Your task to perform on an android device: What's the news in Vietnam? Image 0: 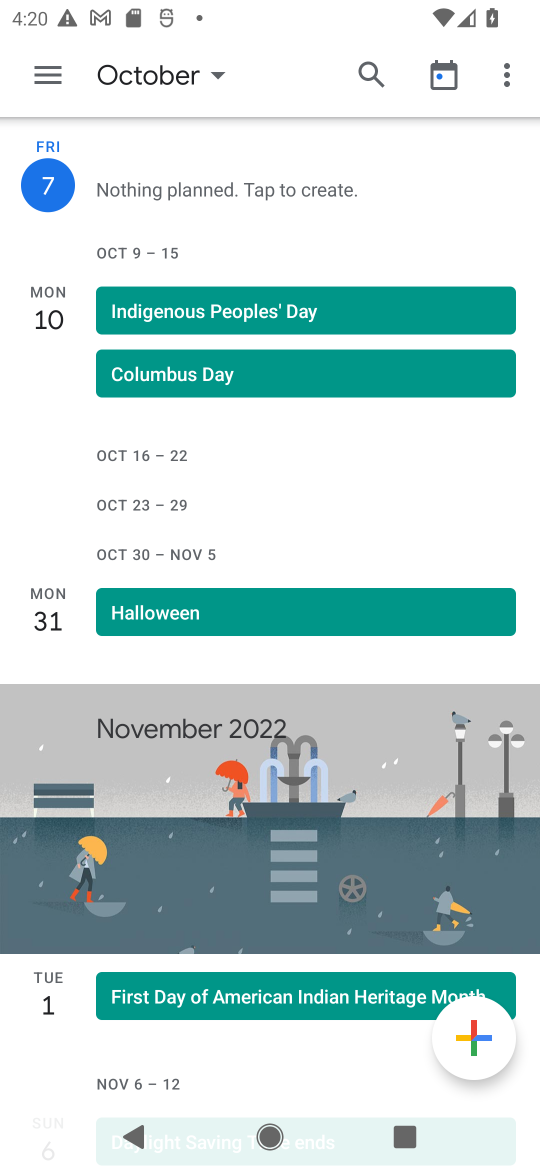
Step 0: press home button
Your task to perform on an android device: What's the news in Vietnam? Image 1: 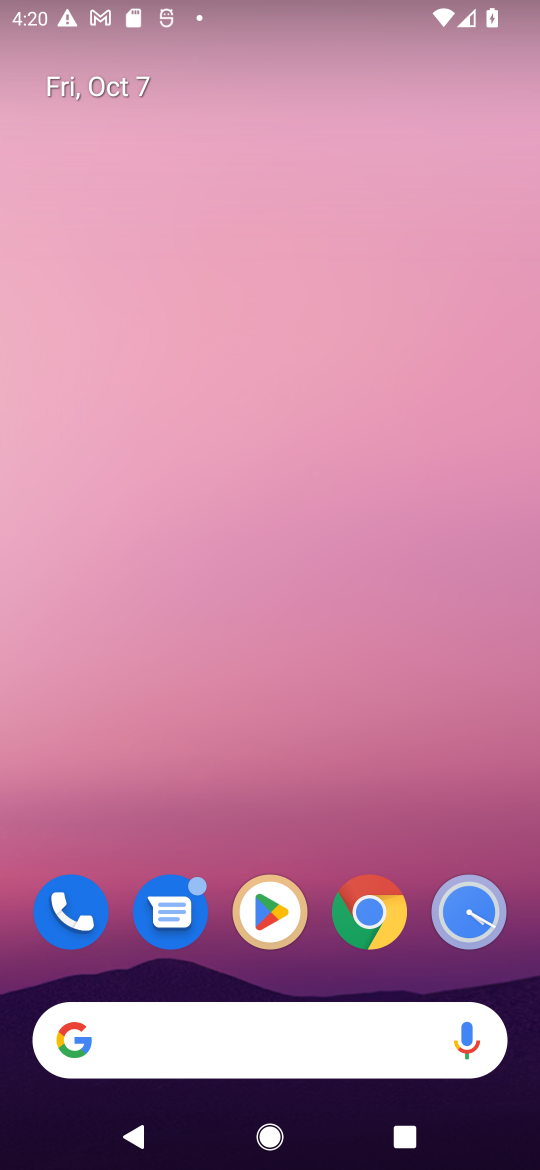
Step 1: drag from (314, 830) to (361, 243)
Your task to perform on an android device: What's the news in Vietnam? Image 2: 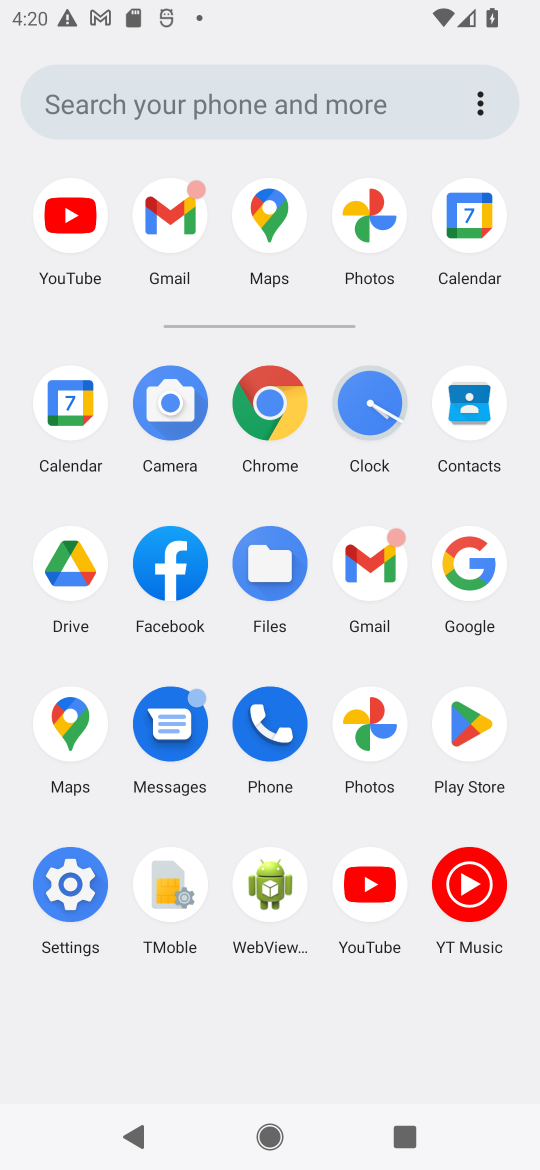
Step 2: click (484, 555)
Your task to perform on an android device: What's the news in Vietnam? Image 3: 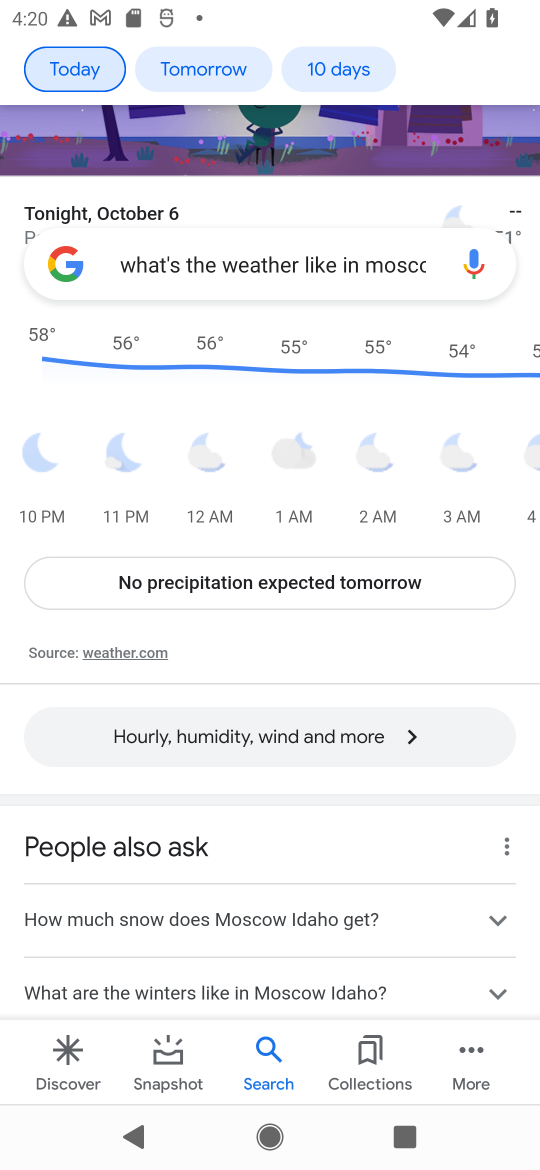
Step 3: drag from (355, 136) to (319, 561)
Your task to perform on an android device: What's the news in Vietnam? Image 4: 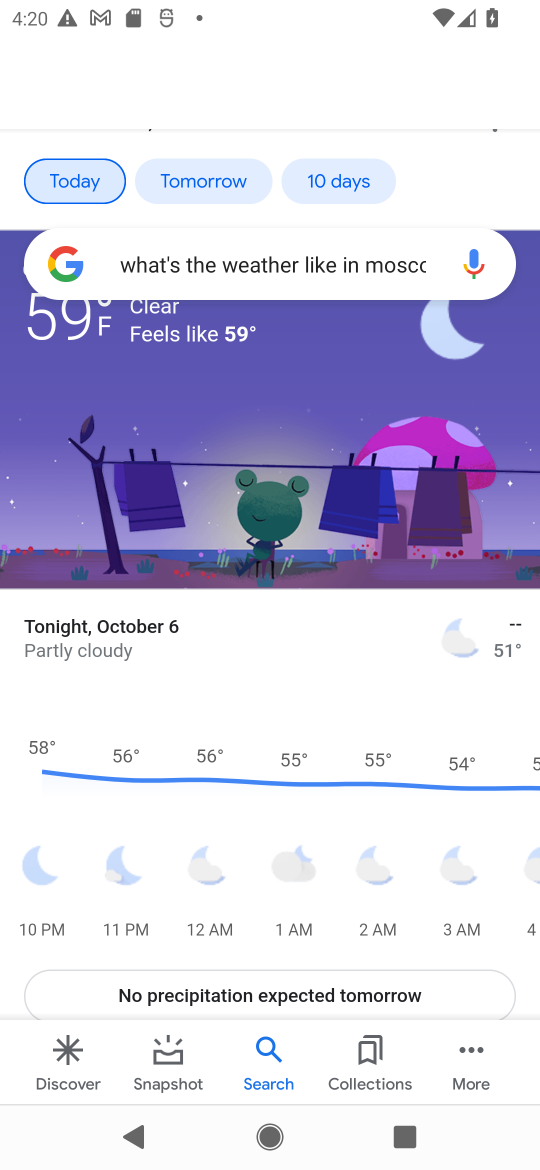
Step 4: click (411, 248)
Your task to perform on an android device: What's the news in Vietnam? Image 5: 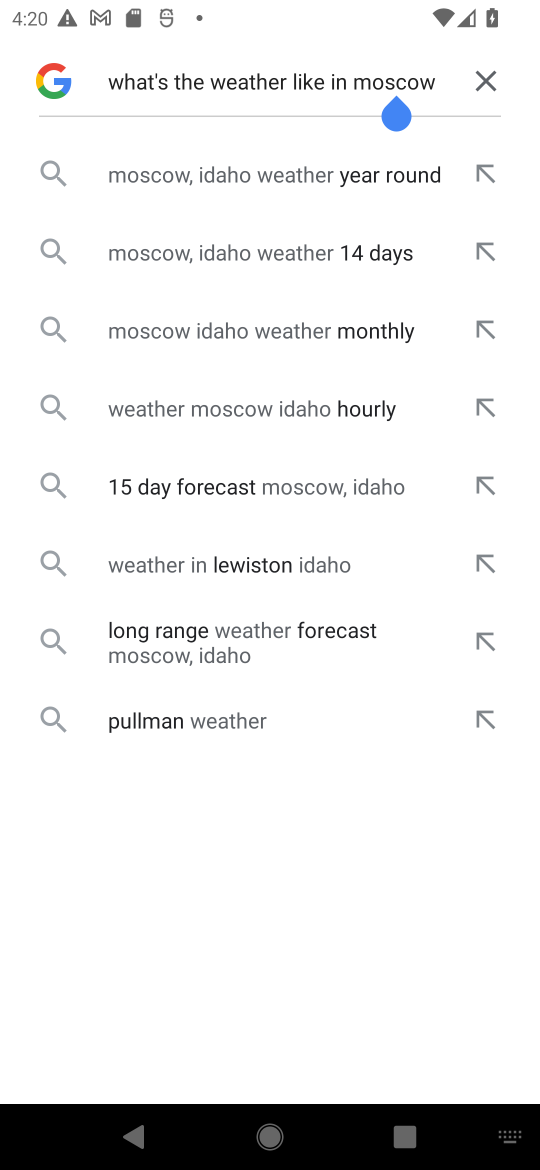
Step 5: click (471, 74)
Your task to perform on an android device: What's the news in Vietnam? Image 6: 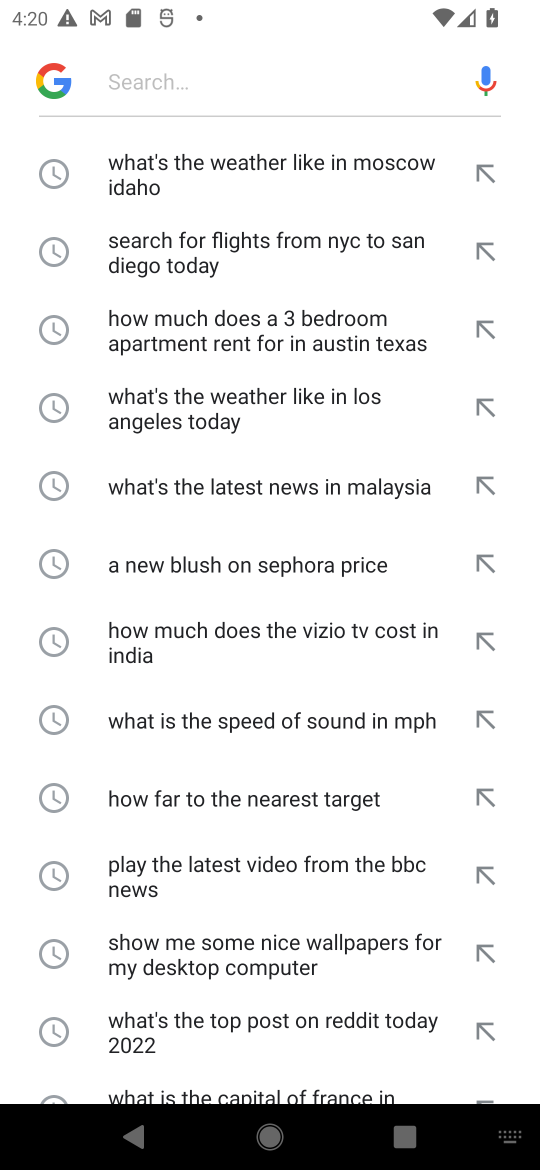
Step 6: click (240, 50)
Your task to perform on an android device: What's the news in Vietnam? Image 7: 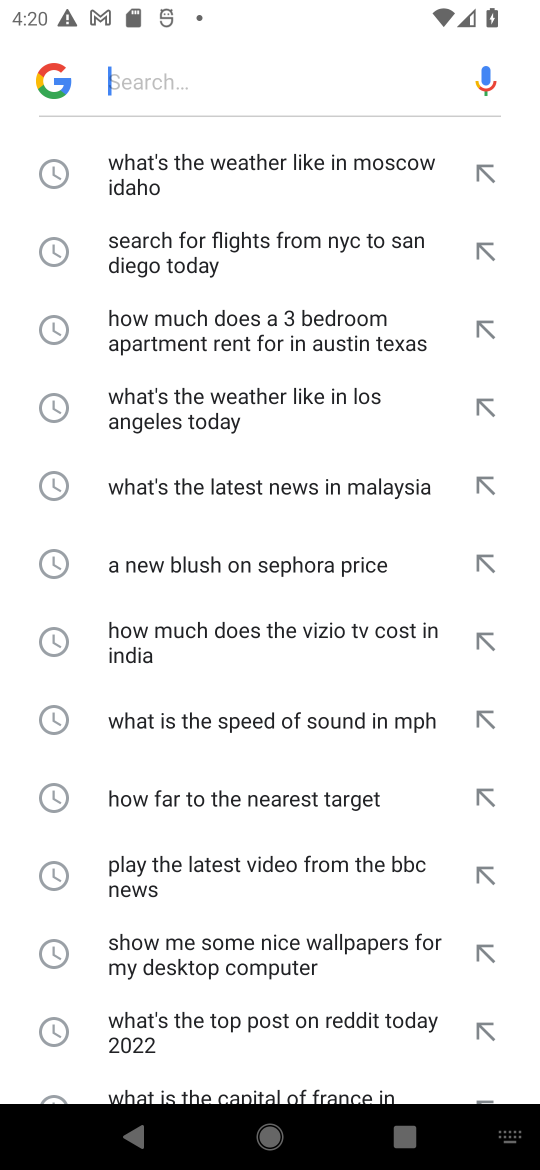
Step 7: type "What's the news in Vietnam? "
Your task to perform on an android device: What's the news in Vietnam? Image 8: 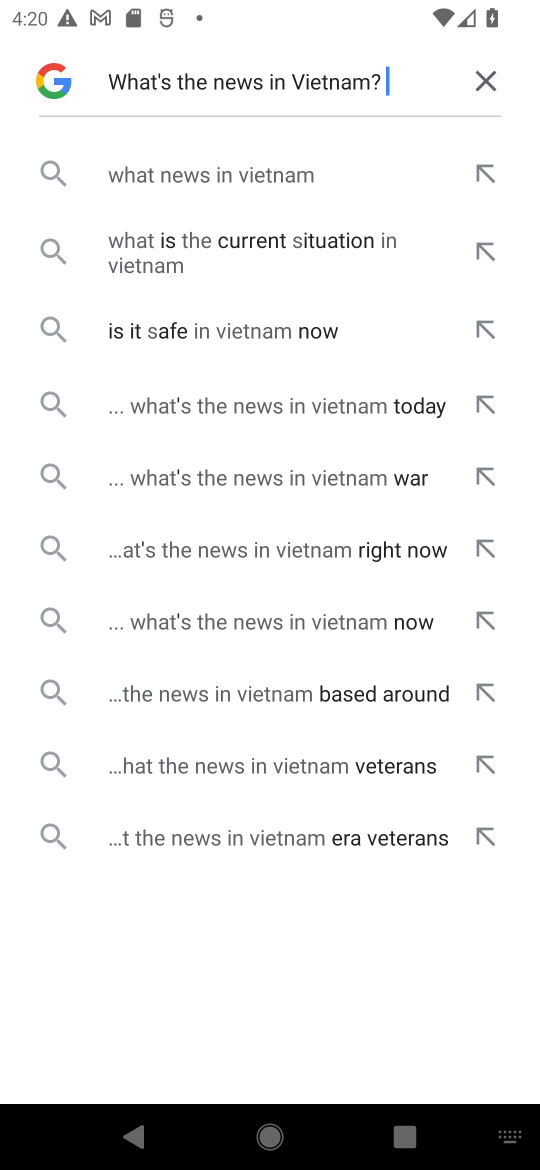
Step 8: click (208, 164)
Your task to perform on an android device: What's the news in Vietnam? Image 9: 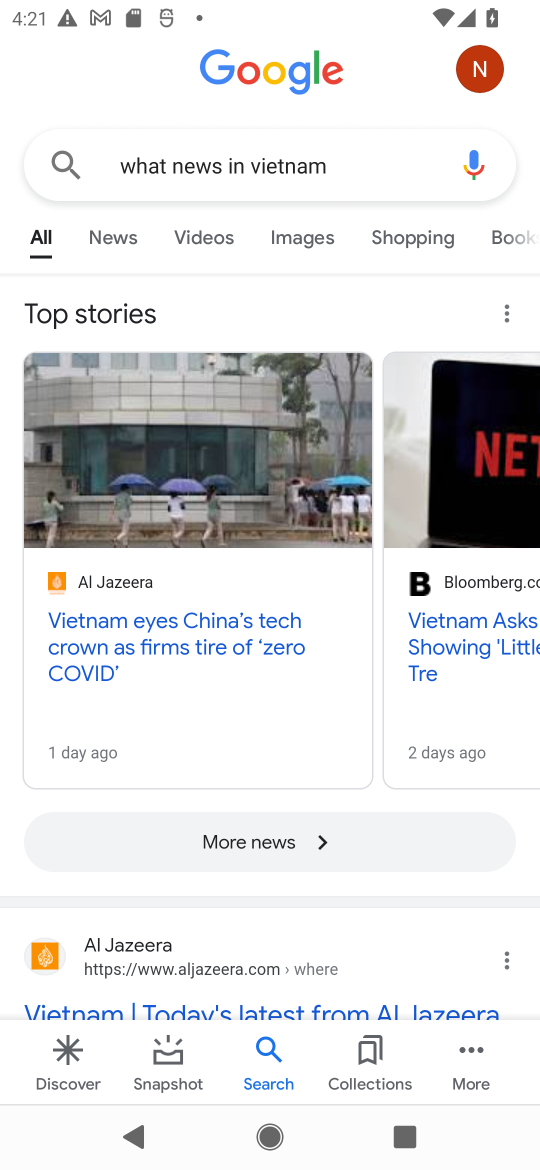
Step 9: task complete